Your task to perform on an android device: Go to privacy settings Image 0: 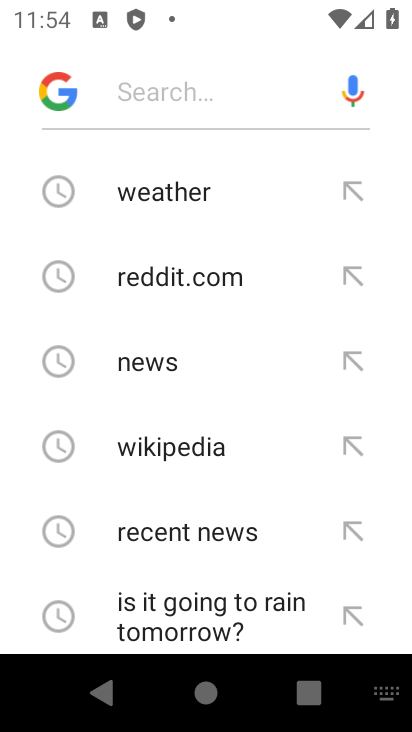
Step 0: press home button
Your task to perform on an android device: Go to privacy settings Image 1: 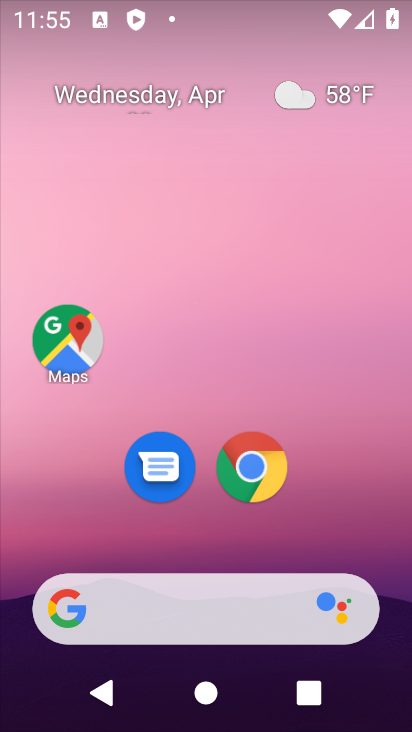
Step 1: click (239, 163)
Your task to perform on an android device: Go to privacy settings Image 2: 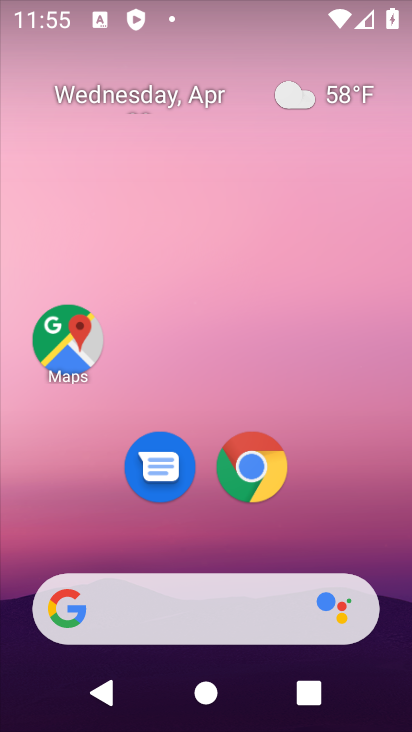
Step 2: click (268, 457)
Your task to perform on an android device: Go to privacy settings Image 3: 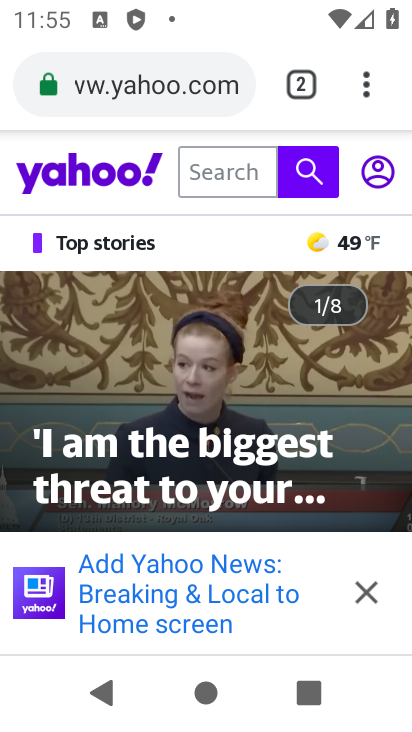
Step 3: drag from (369, 78) to (117, 500)
Your task to perform on an android device: Go to privacy settings Image 4: 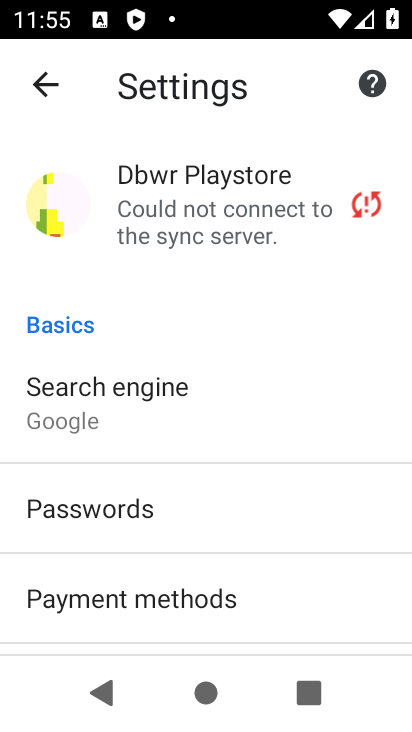
Step 4: drag from (170, 603) to (175, 182)
Your task to perform on an android device: Go to privacy settings Image 5: 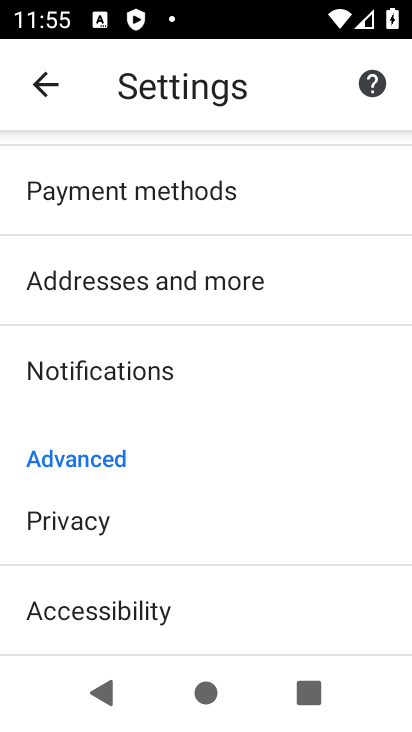
Step 5: click (94, 511)
Your task to perform on an android device: Go to privacy settings Image 6: 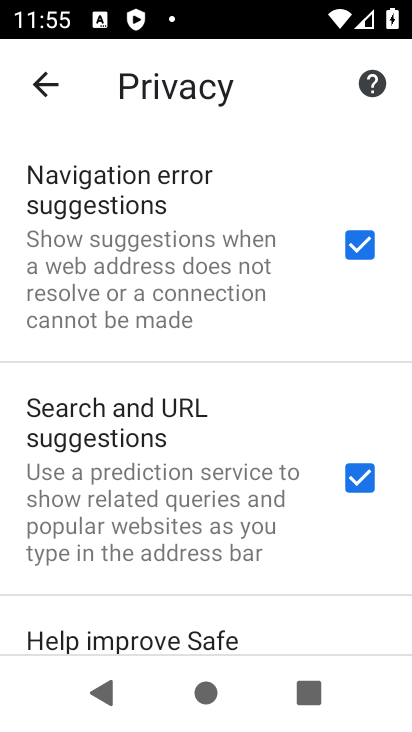
Step 6: task complete